Your task to perform on an android device: What's the weather going to be tomorrow? Image 0: 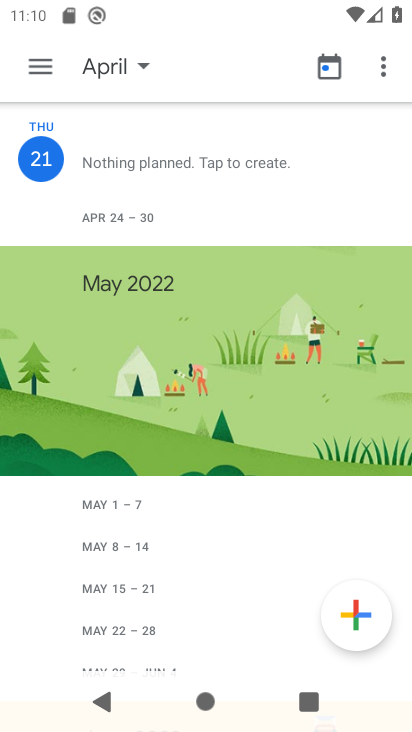
Step 0: press home button
Your task to perform on an android device: What's the weather going to be tomorrow? Image 1: 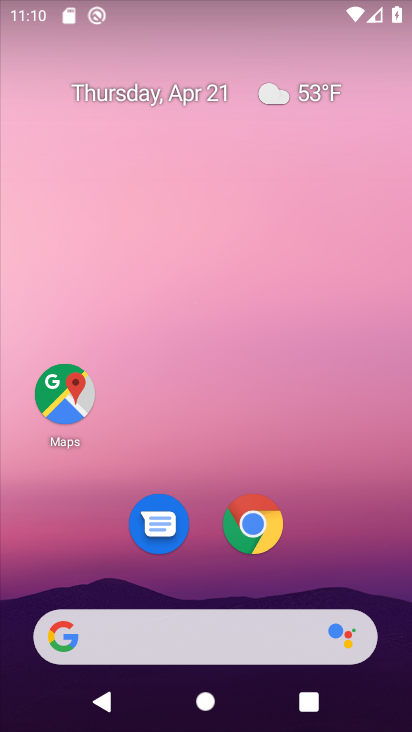
Step 1: click (303, 93)
Your task to perform on an android device: What's the weather going to be tomorrow? Image 2: 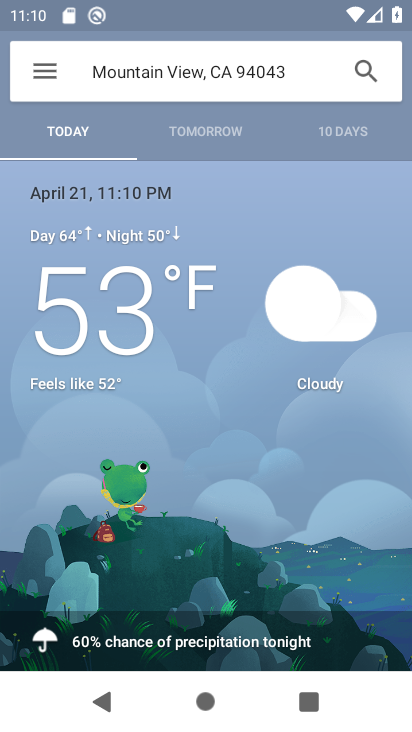
Step 2: click (219, 123)
Your task to perform on an android device: What's the weather going to be tomorrow? Image 3: 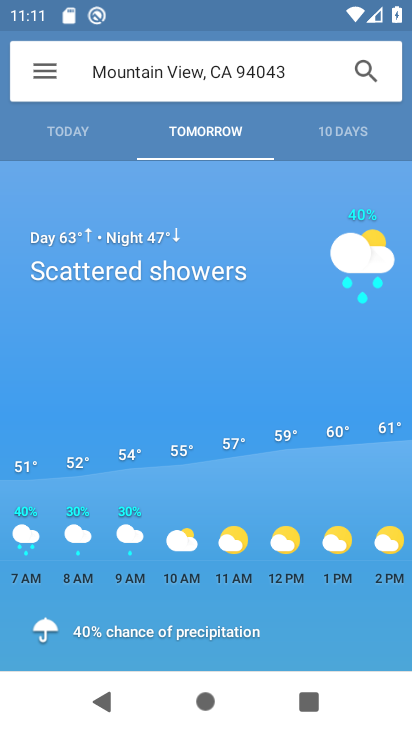
Step 3: task complete